Your task to perform on an android device: turn off location history Image 0: 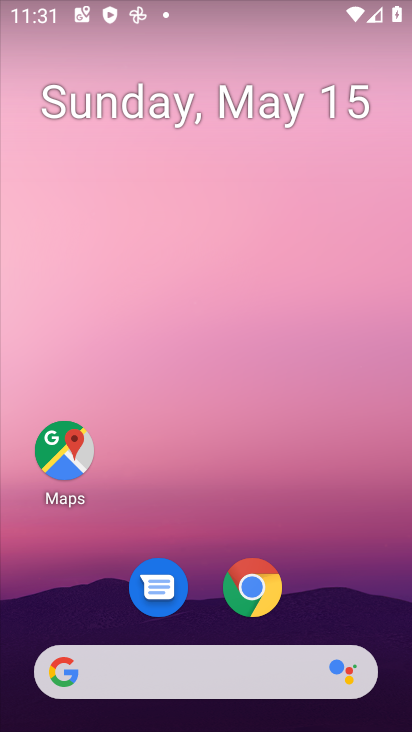
Step 0: drag from (387, 588) to (313, 40)
Your task to perform on an android device: turn off location history Image 1: 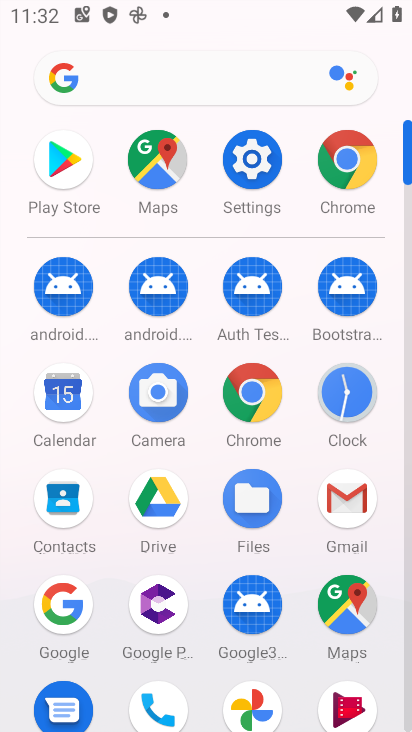
Step 1: click (235, 170)
Your task to perform on an android device: turn off location history Image 2: 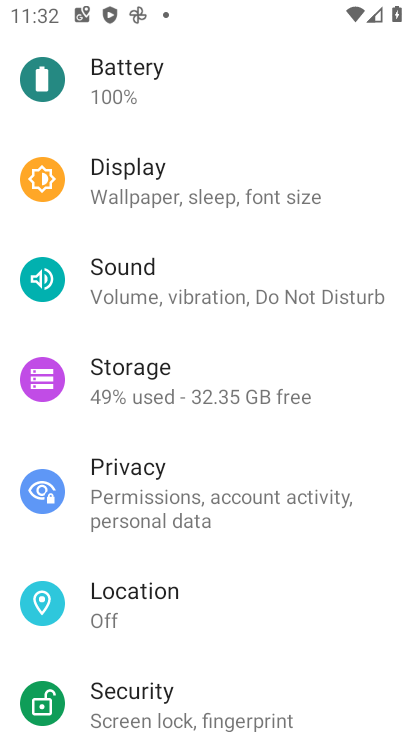
Step 2: click (157, 583)
Your task to perform on an android device: turn off location history Image 3: 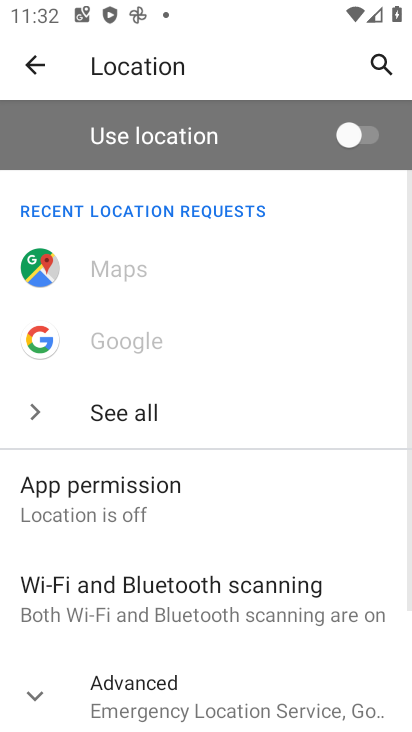
Step 3: drag from (162, 642) to (270, 233)
Your task to perform on an android device: turn off location history Image 4: 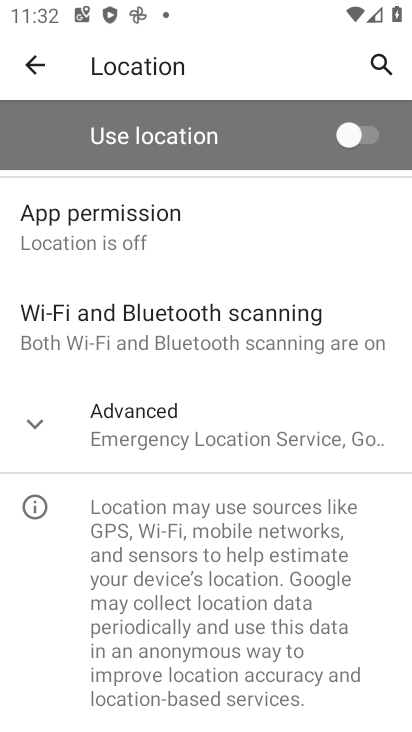
Step 4: click (165, 446)
Your task to perform on an android device: turn off location history Image 5: 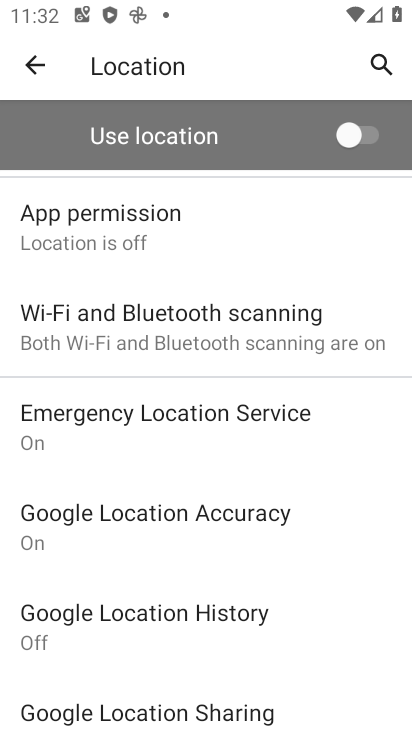
Step 5: click (143, 620)
Your task to perform on an android device: turn off location history Image 6: 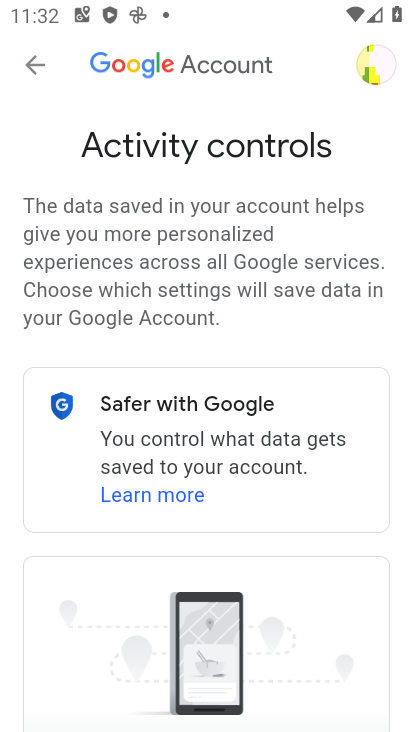
Step 6: drag from (290, 609) to (247, 118)
Your task to perform on an android device: turn off location history Image 7: 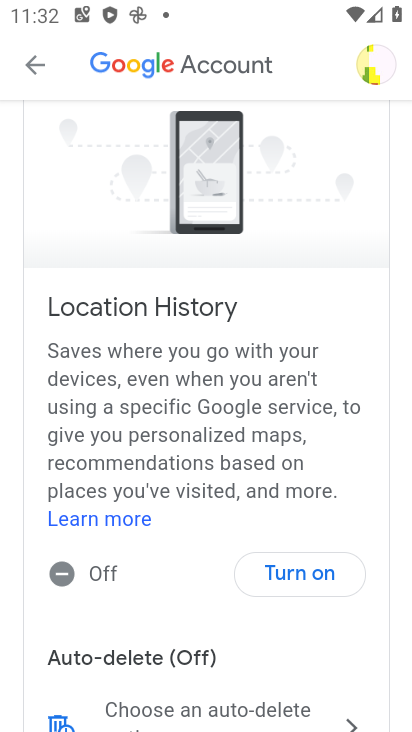
Step 7: click (303, 578)
Your task to perform on an android device: turn off location history Image 8: 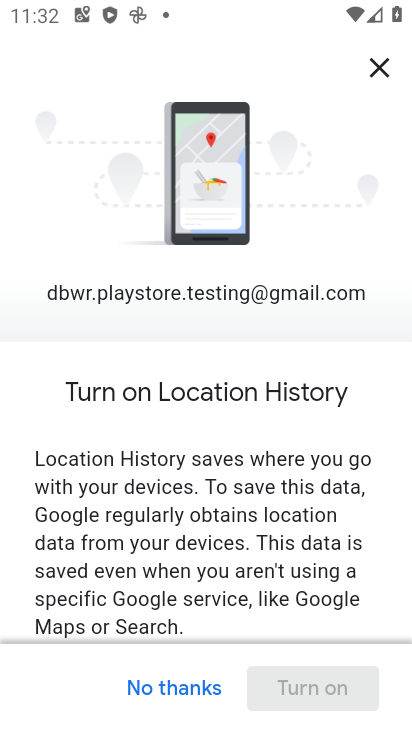
Step 8: task complete